Your task to perform on an android device: set default search engine in the chrome app Image 0: 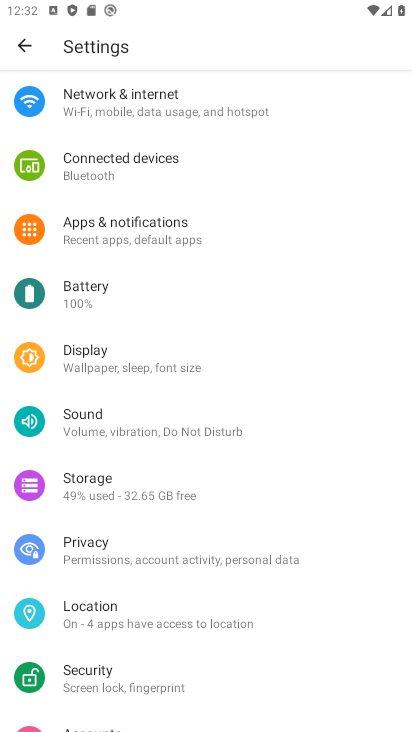
Step 0: press home button
Your task to perform on an android device: set default search engine in the chrome app Image 1: 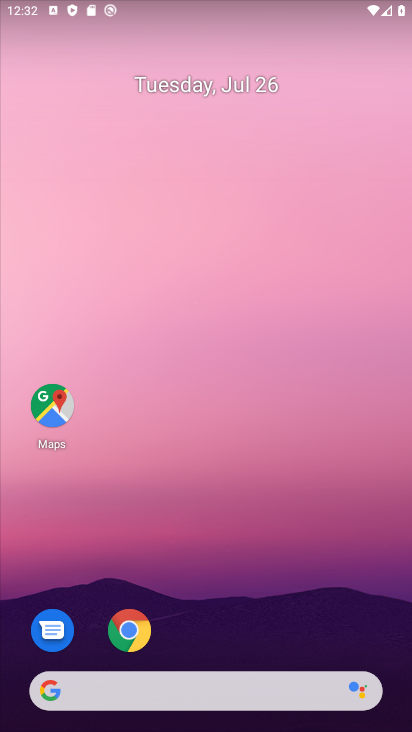
Step 1: click (131, 638)
Your task to perform on an android device: set default search engine in the chrome app Image 2: 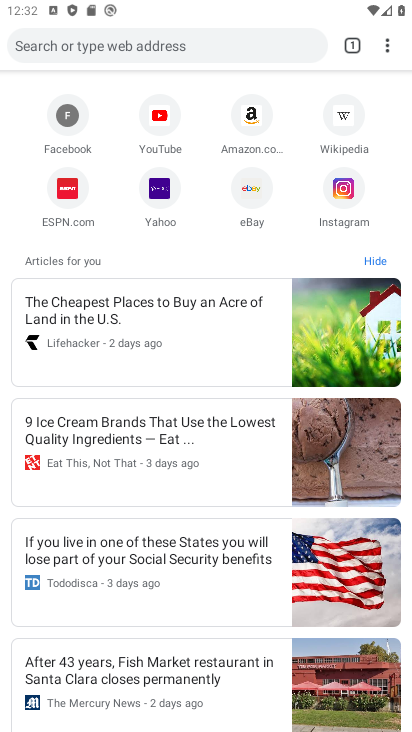
Step 2: click (386, 51)
Your task to perform on an android device: set default search engine in the chrome app Image 3: 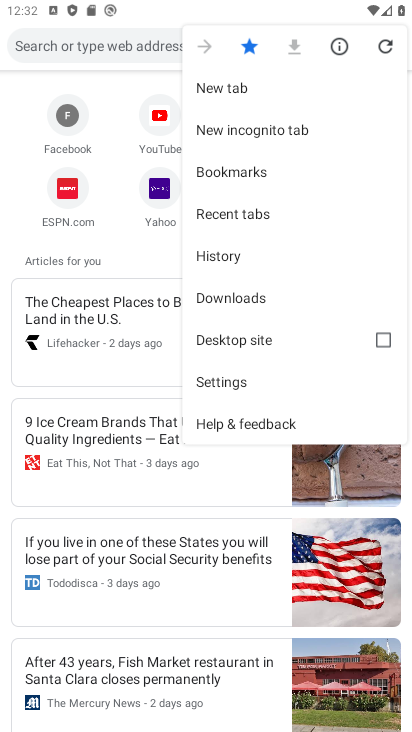
Step 3: click (232, 376)
Your task to perform on an android device: set default search engine in the chrome app Image 4: 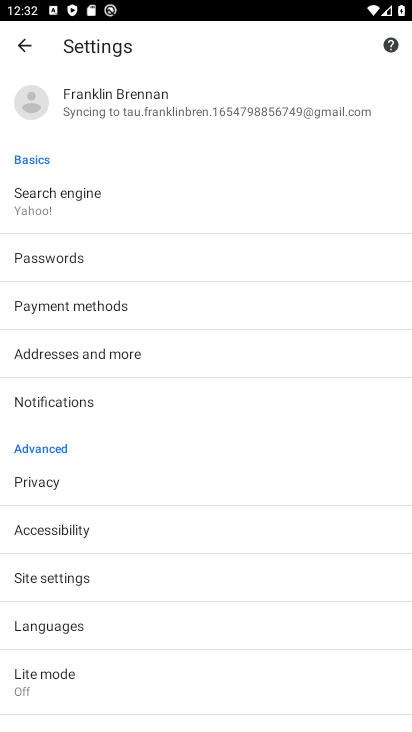
Step 4: click (44, 198)
Your task to perform on an android device: set default search engine in the chrome app Image 5: 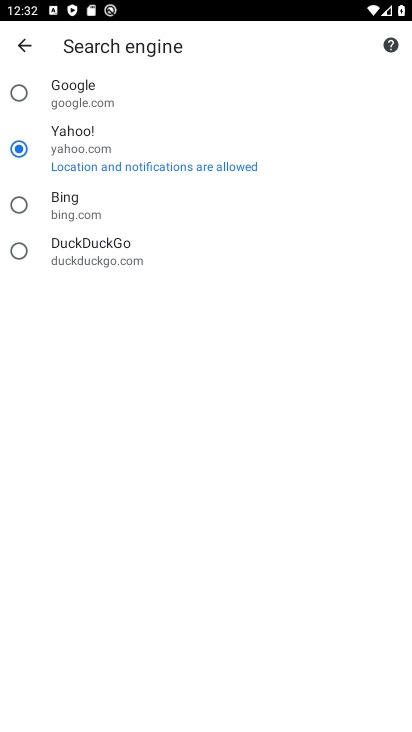
Step 5: click (24, 95)
Your task to perform on an android device: set default search engine in the chrome app Image 6: 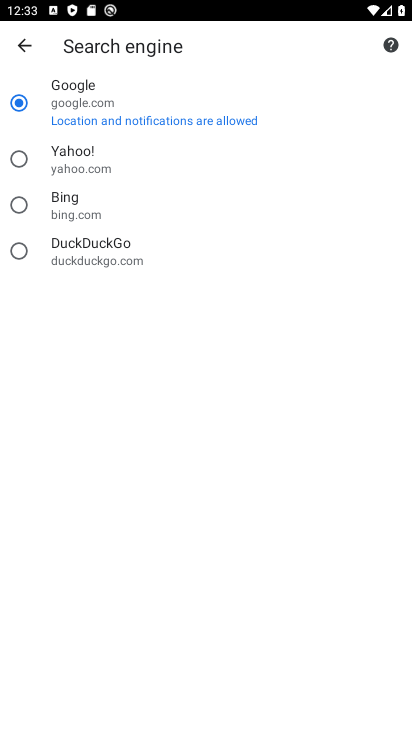
Step 6: task complete